Your task to perform on an android device: Is it going to rain today? Image 0: 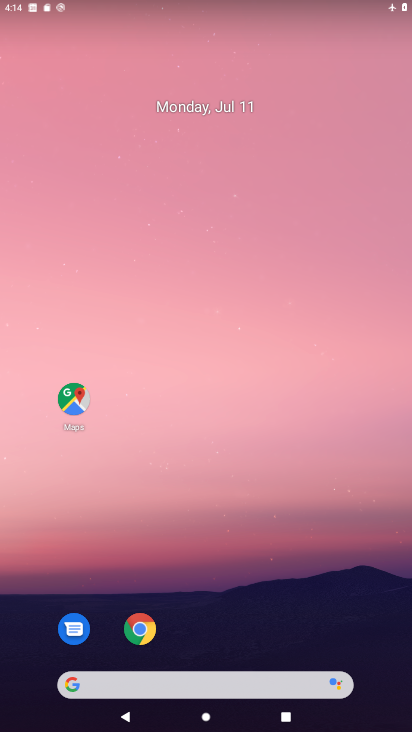
Step 0: drag from (12, 187) to (379, 172)
Your task to perform on an android device: Is it going to rain today? Image 1: 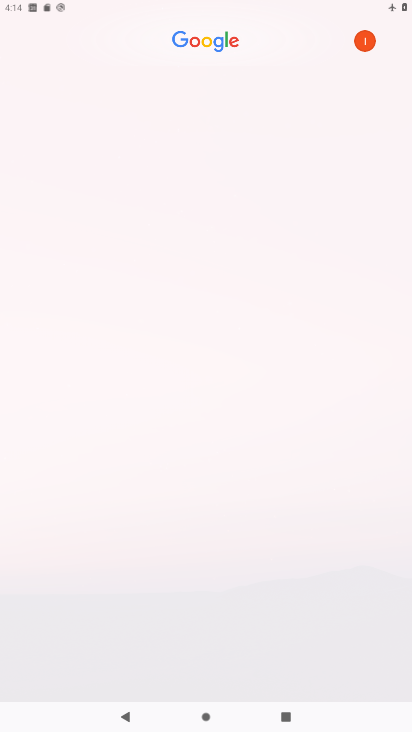
Step 1: task complete